Your task to perform on an android device: turn smart compose on in the gmail app Image 0: 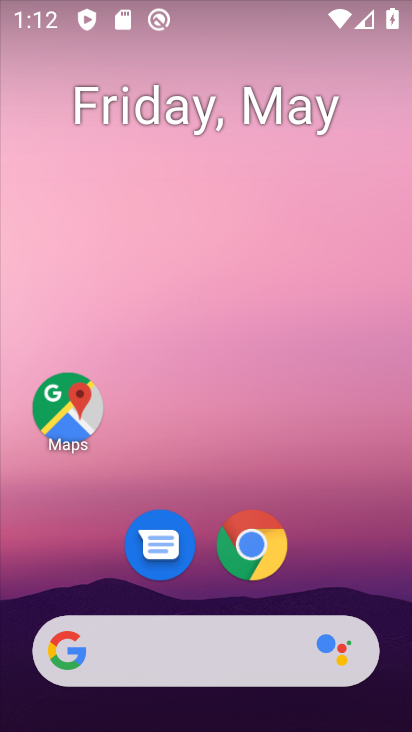
Step 0: drag from (358, 539) to (286, 232)
Your task to perform on an android device: turn smart compose on in the gmail app Image 1: 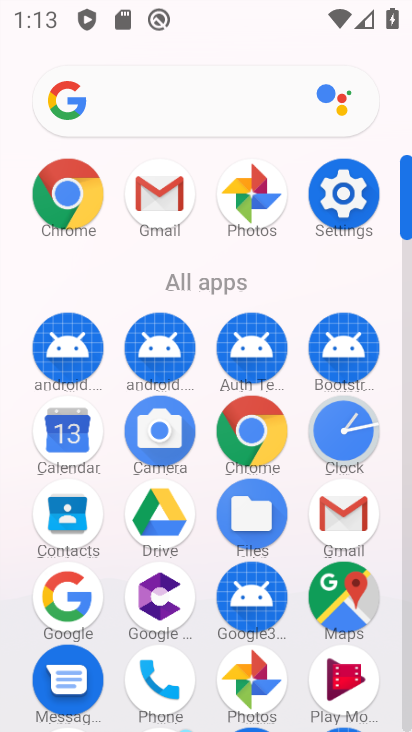
Step 1: click (347, 522)
Your task to perform on an android device: turn smart compose on in the gmail app Image 2: 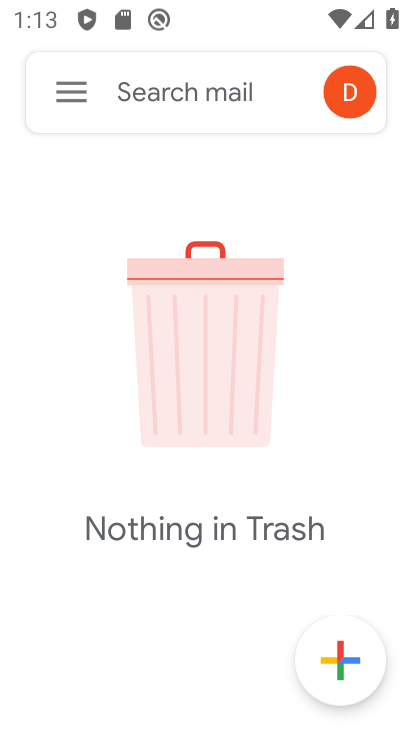
Step 2: click (84, 120)
Your task to perform on an android device: turn smart compose on in the gmail app Image 3: 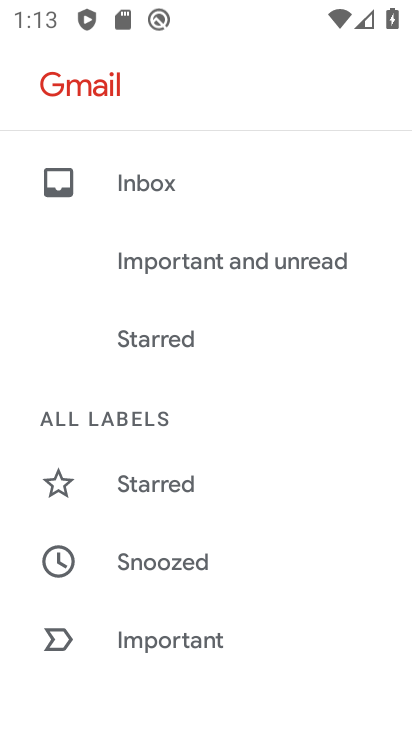
Step 3: drag from (245, 560) to (189, 335)
Your task to perform on an android device: turn smart compose on in the gmail app Image 4: 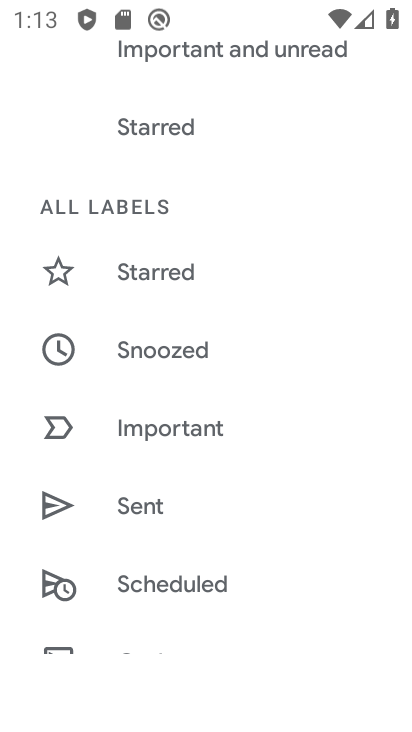
Step 4: drag from (301, 594) to (205, 290)
Your task to perform on an android device: turn smart compose on in the gmail app Image 5: 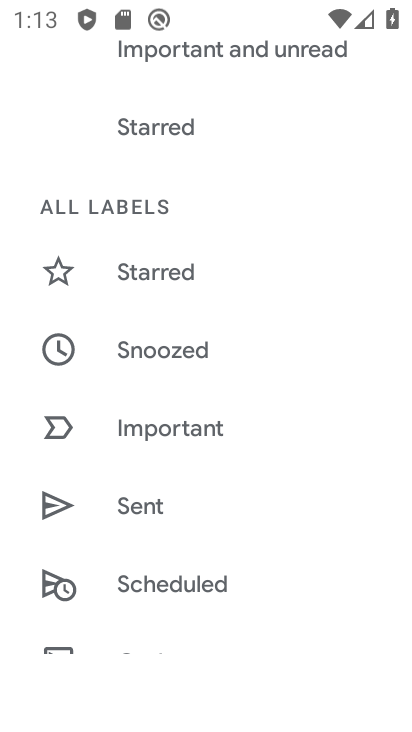
Step 5: drag from (255, 466) to (220, 227)
Your task to perform on an android device: turn smart compose on in the gmail app Image 6: 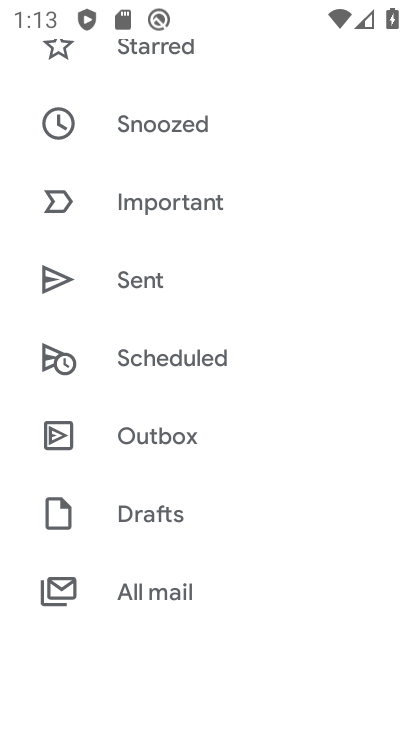
Step 6: drag from (191, 538) to (147, 124)
Your task to perform on an android device: turn smart compose on in the gmail app Image 7: 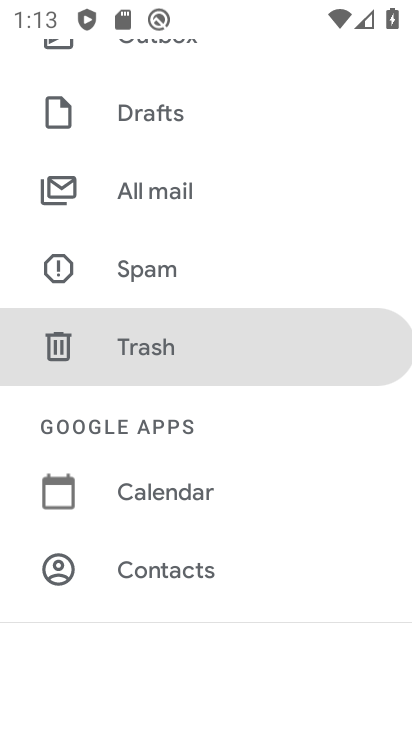
Step 7: drag from (210, 522) to (176, 213)
Your task to perform on an android device: turn smart compose on in the gmail app Image 8: 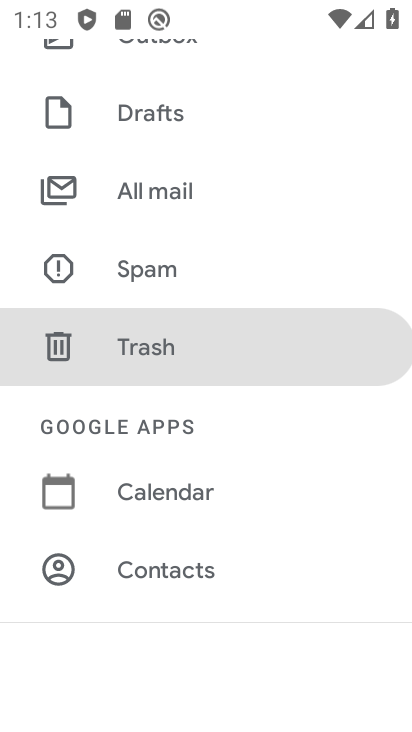
Step 8: drag from (205, 503) to (166, 148)
Your task to perform on an android device: turn smart compose on in the gmail app Image 9: 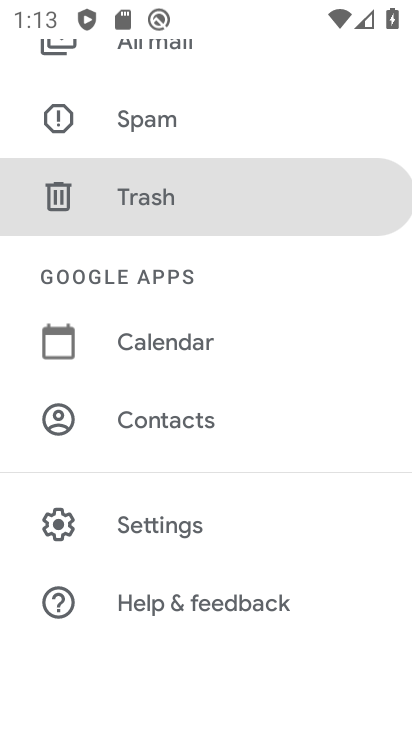
Step 9: click (239, 515)
Your task to perform on an android device: turn smart compose on in the gmail app Image 10: 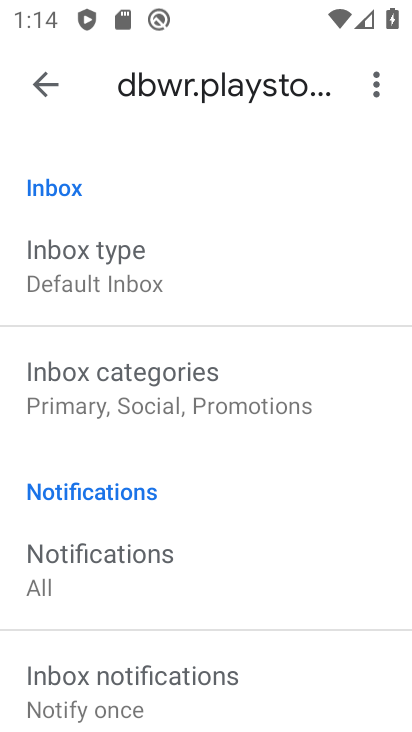
Step 10: task complete